Your task to perform on an android device: uninstall "Etsy: Buy & Sell Unique Items" Image 0: 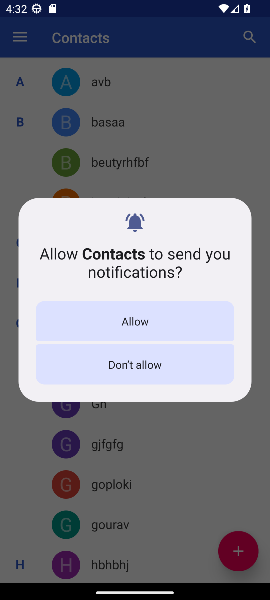
Step 0: press home button
Your task to perform on an android device: uninstall "Etsy: Buy & Sell Unique Items" Image 1: 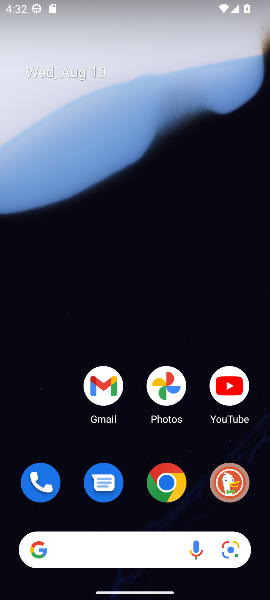
Step 1: drag from (139, 499) to (110, 56)
Your task to perform on an android device: uninstall "Etsy: Buy & Sell Unique Items" Image 2: 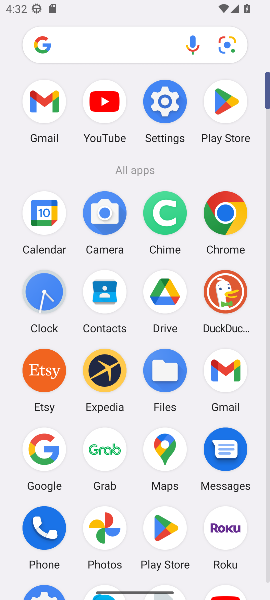
Step 2: click (162, 536)
Your task to perform on an android device: uninstall "Etsy: Buy & Sell Unique Items" Image 3: 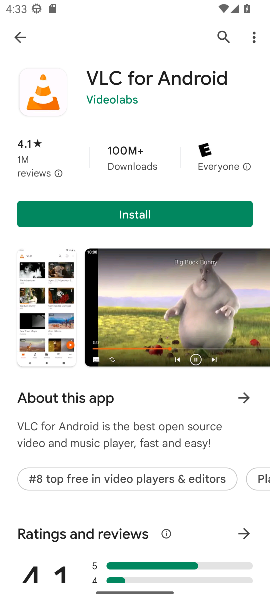
Step 3: click (223, 35)
Your task to perform on an android device: uninstall "Etsy: Buy & Sell Unique Items" Image 4: 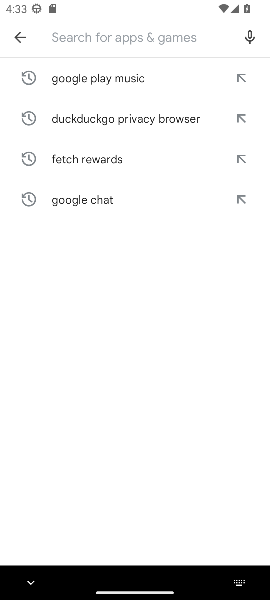
Step 4: type "Etsy: Buy & Sell Unique Items"
Your task to perform on an android device: uninstall "Etsy: Buy & Sell Unique Items" Image 5: 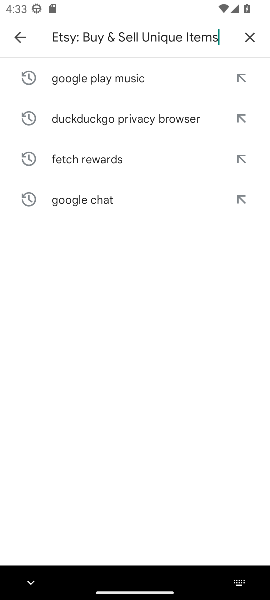
Step 5: type ""
Your task to perform on an android device: uninstall "Etsy: Buy & Sell Unique Items" Image 6: 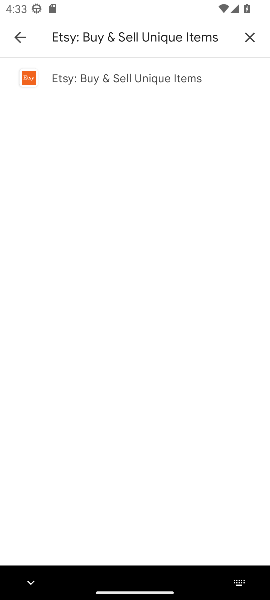
Step 6: click (80, 80)
Your task to perform on an android device: uninstall "Etsy: Buy & Sell Unique Items" Image 7: 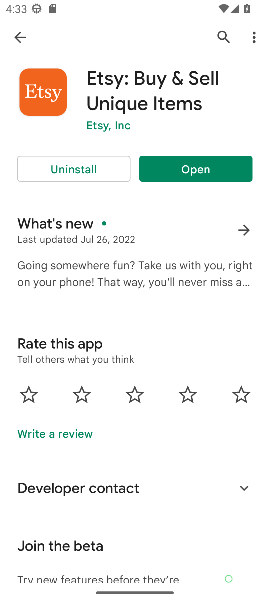
Step 7: click (92, 165)
Your task to perform on an android device: uninstall "Etsy: Buy & Sell Unique Items" Image 8: 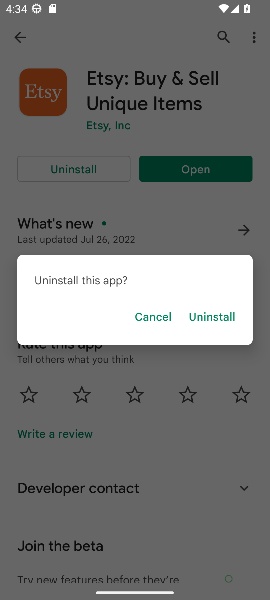
Step 8: click (219, 312)
Your task to perform on an android device: uninstall "Etsy: Buy & Sell Unique Items" Image 9: 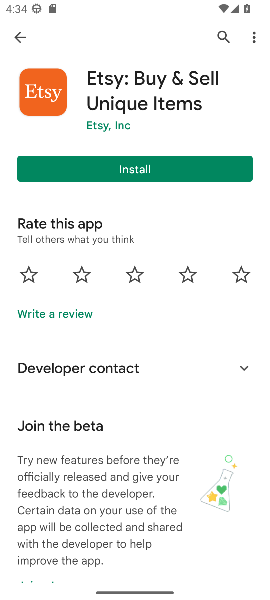
Step 9: task complete